Your task to perform on an android device: Go to ESPN.com Image 0: 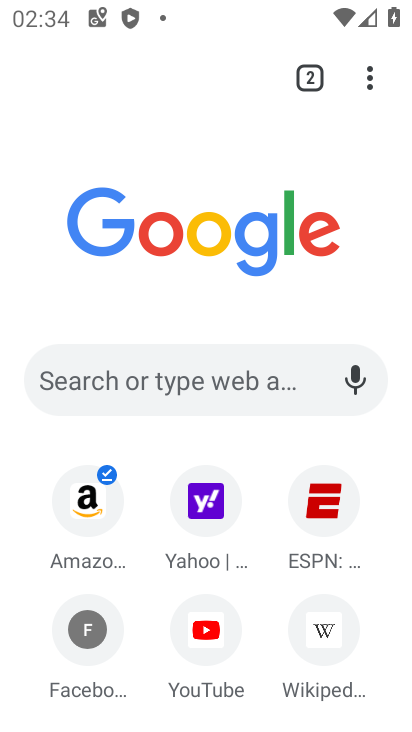
Step 0: click (333, 514)
Your task to perform on an android device: Go to ESPN.com Image 1: 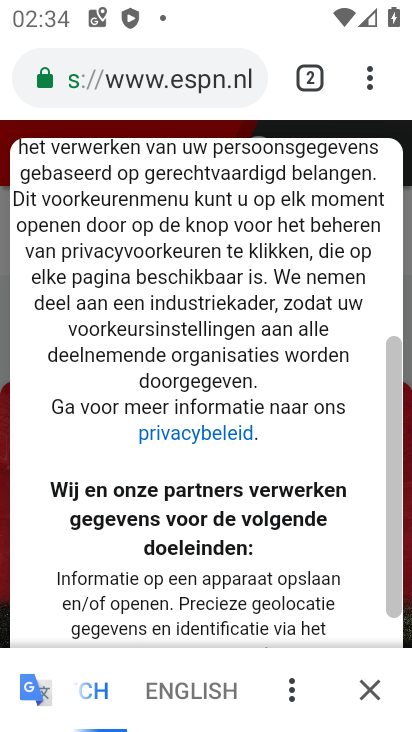
Step 1: task complete